Your task to perform on an android device: check out phone information Image 0: 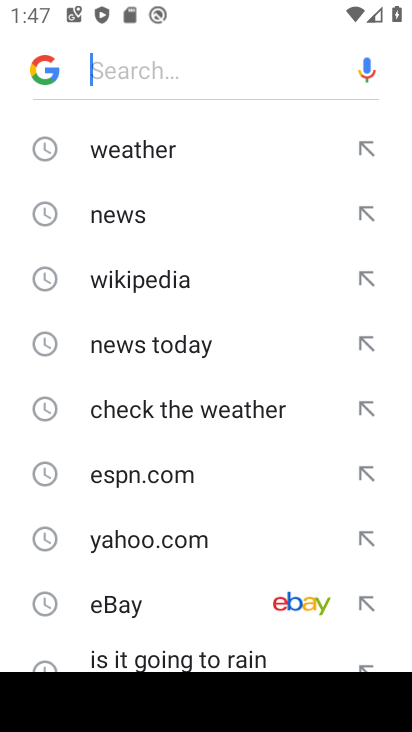
Step 0: drag from (211, 408) to (369, 24)
Your task to perform on an android device: check out phone information Image 1: 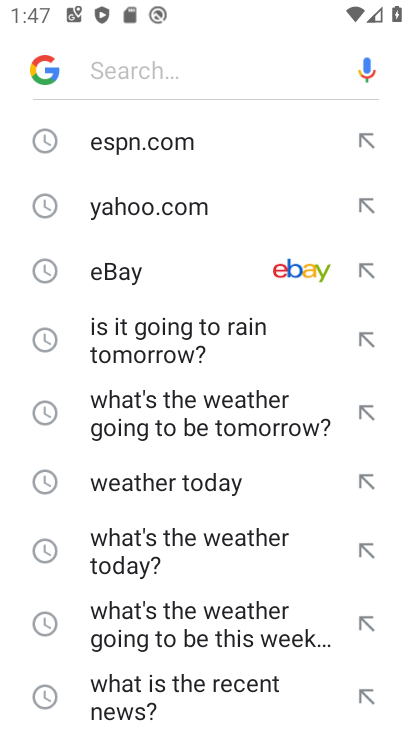
Step 1: press home button
Your task to perform on an android device: check out phone information Image 2: 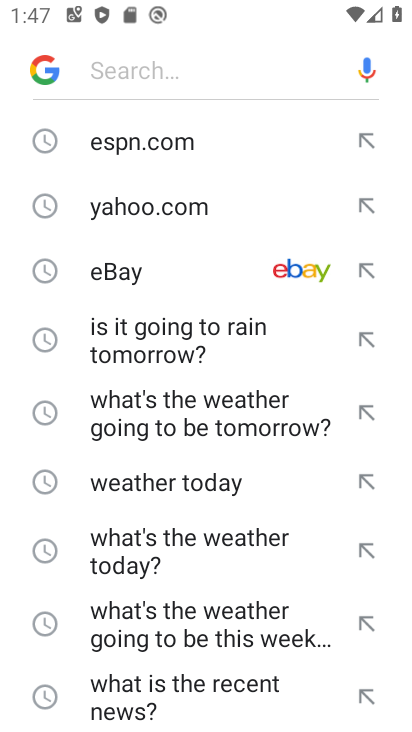
Step 2: click (407, 377)
Your task to perform on an android device: check out phone information Image 3: 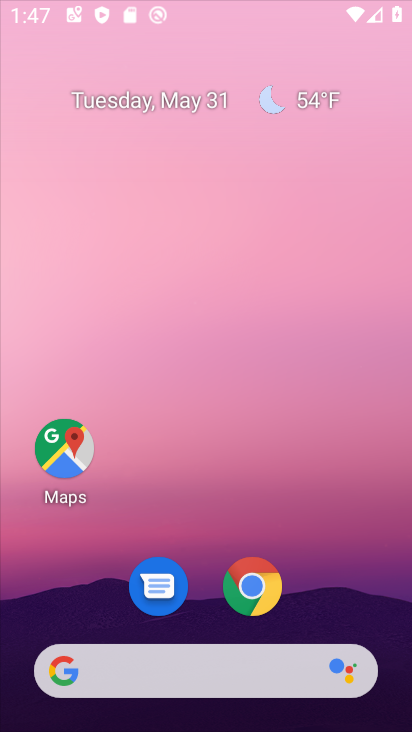
Step 3: drag from (247, 583) to (313, 86)
Your task to perform on an android device: check out phone information Image 4: 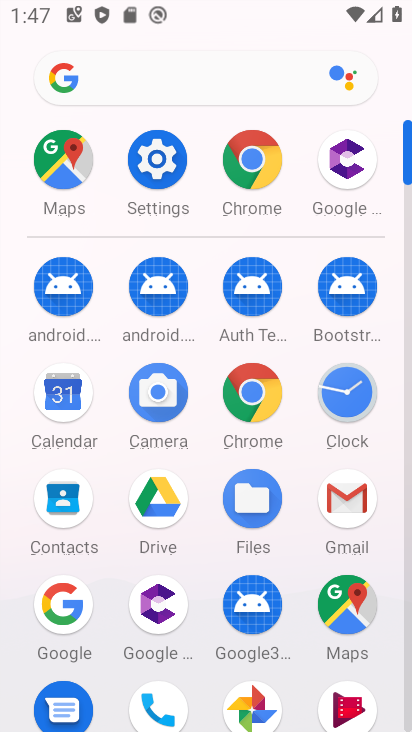
Step 4: click (162, 158)
Your task to perform on an android device: check out phone information Image 5: 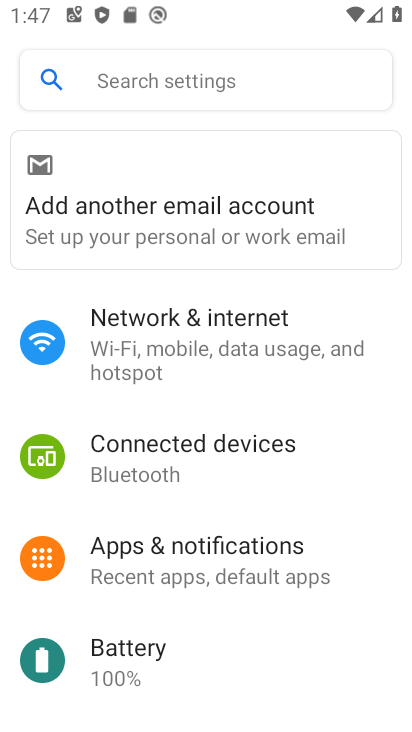
Step 5: drag from (203, 611) to (224, 12)
Your task to perform on an android device: check out phone information Image 6: 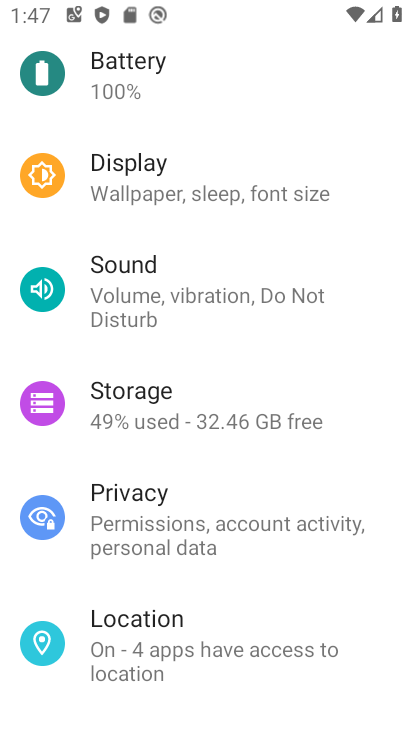
Step 6: drag from (192, 617) to (199, 32)
Your task to perform on an android device: check out phone information Image 7: 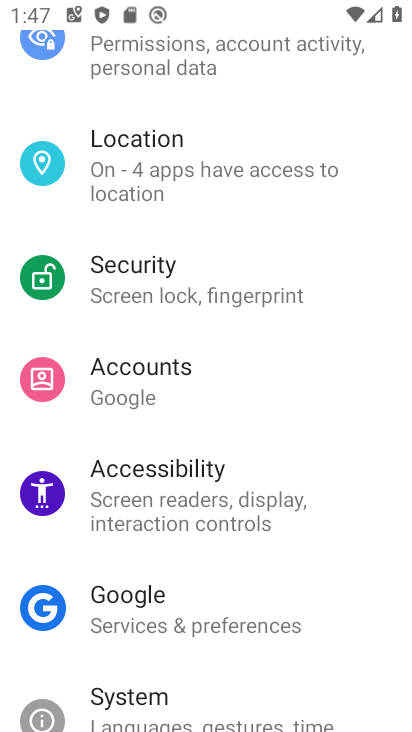
Step 7: drag from (186, 655) to (283, 13)
Your task to perform on an android device: check out phone information Image 8: 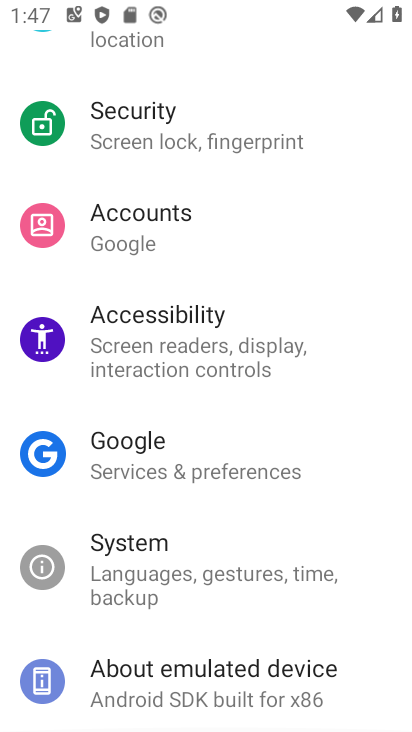
Step 8: click (143, 705)
Your task to perform on an android device: check out phone information Image 9: 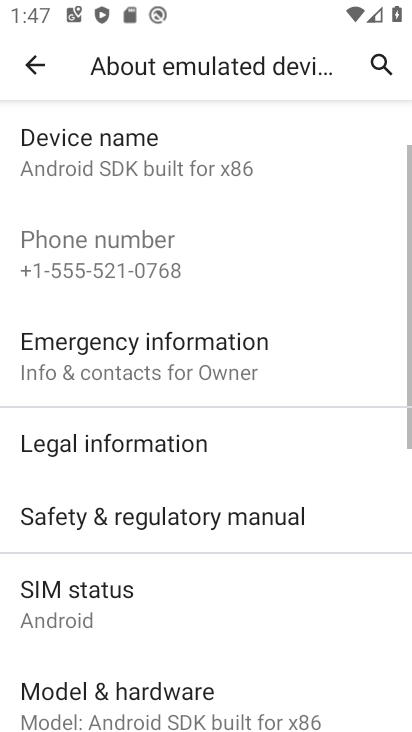
Step 9: task complete